Your task to perform on an android device: find photos in the google photos app Image 0: 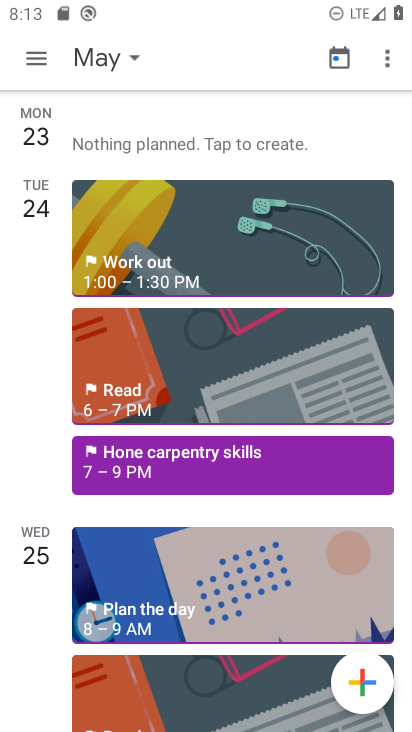
Step 0: press home button
Your task to perform on an android device: find photos in the google photos app Image 1: 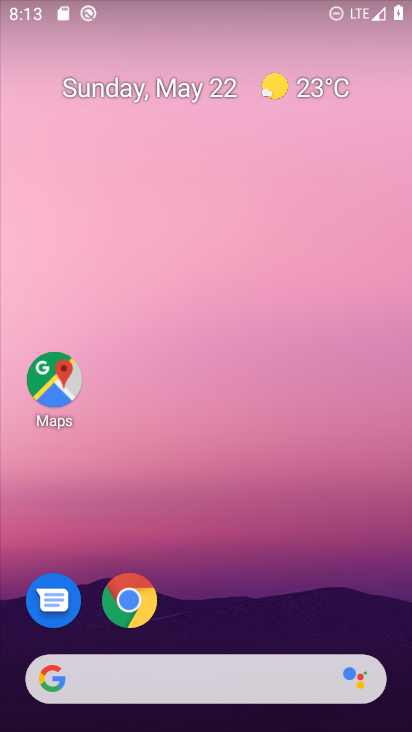
Step 1: drag from (341, 613) to (272, 53)
Your task to perform on an android device: find photos in the google photos app Image 2: 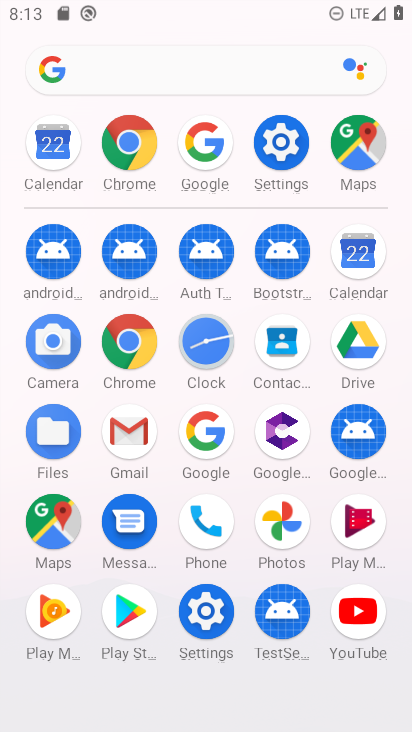
Step 2: click (269, 515)
Your task to perform on an android device: find photos in the google photos app Image 3: 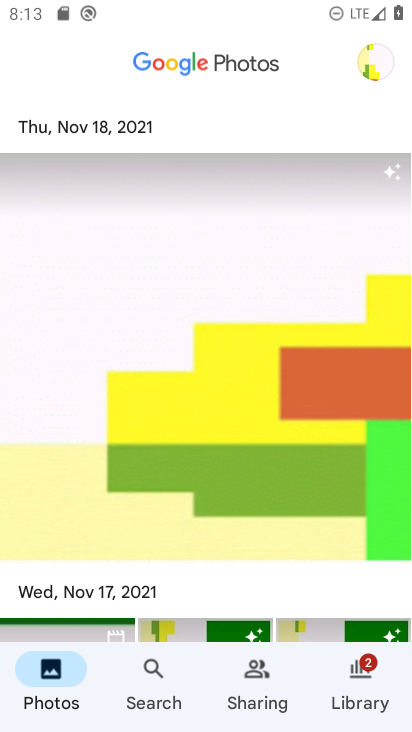
Step 3: task complete